Your task to perform on an android device: Go to display settings Image 0: 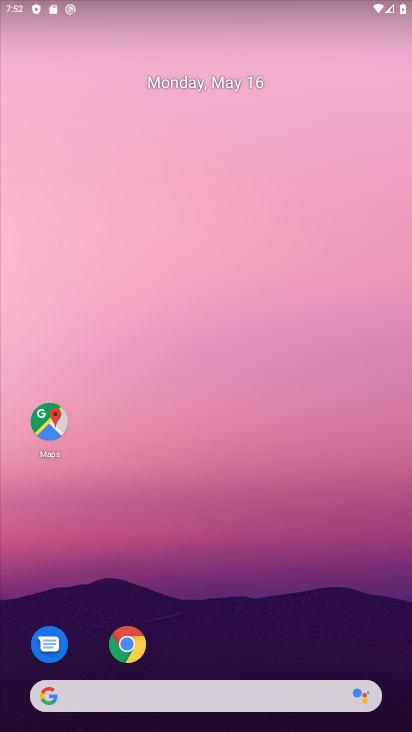
Step 0: drag from (158, 727) to (158, 228)
Your task to perform on an android device: Go to display settings Image 1: 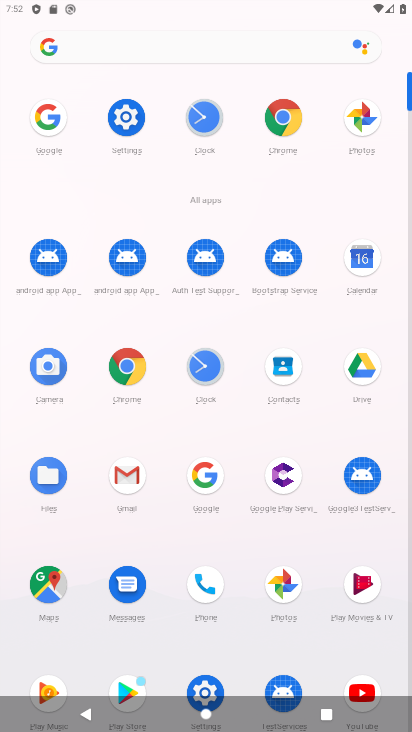
Step 1: click (126, 119)
Your task to perform on an android device: Go to display settings Image 2: 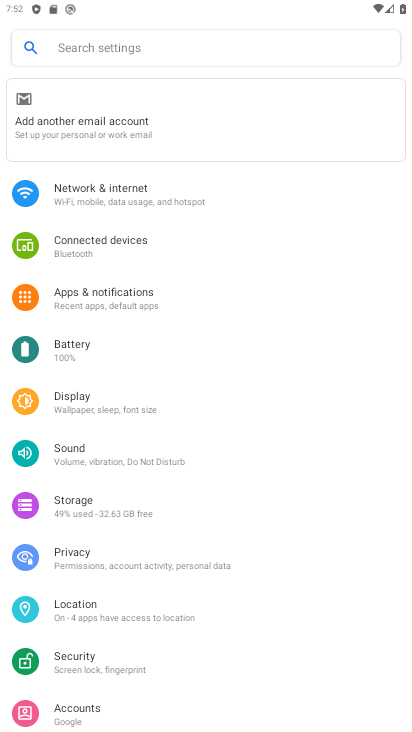
Step 2: click (96, 403)
Your task to perform on an android device: Go to display settings Image 3: 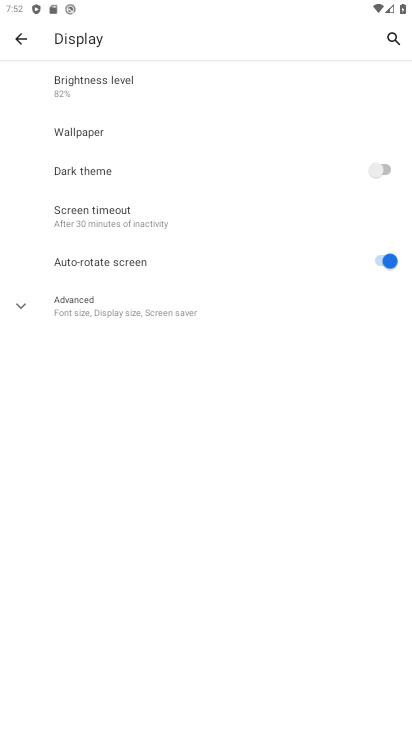
Step 3: task complete